Your task to perform on an android device: turn off wifi Image 0: 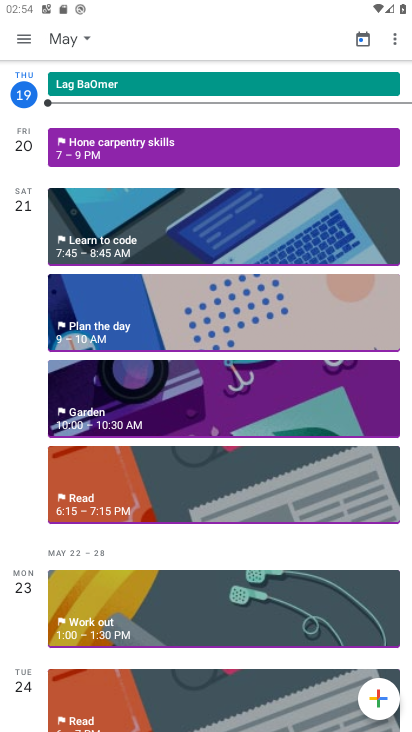
Step 0: press home button
Your task to perform on an android device: turn off wifi Image 1: 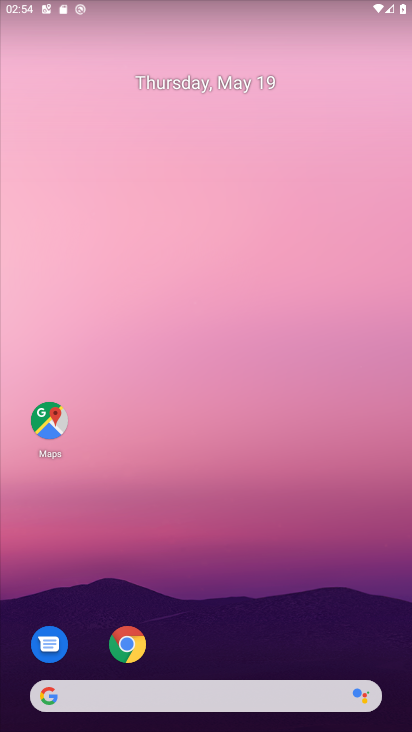
Step 1: drag from (289, 606) to (248, 140)
Your task to perform on an android device: turn off wifi Image 2: 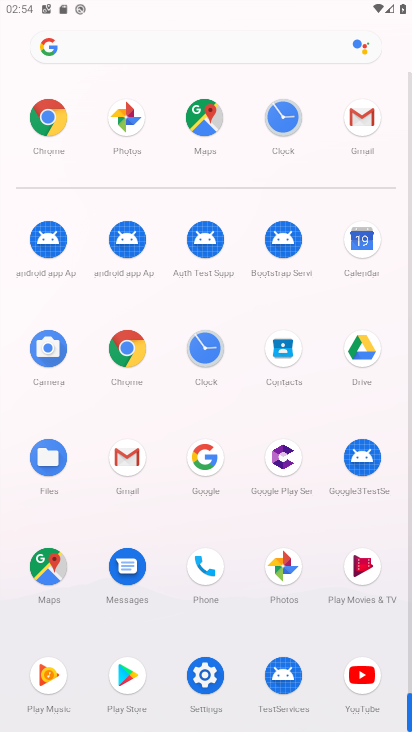
Step 2: drag from (282, 588) to (297, 255)
Your task to perform on an android device: turn off wifi Image 3: 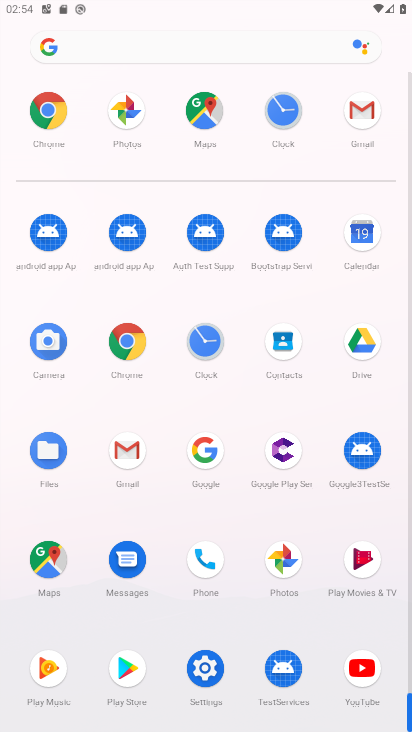
Step 3: click (193, 658)
Your task to perform on an android device: turn off wifi Image 4: 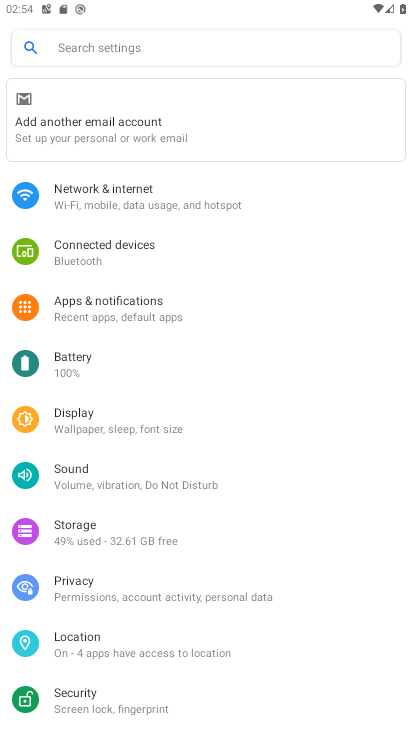
Step 4: click (133, 192)
Your task to perform on an android device: turn off wifi Image 5: 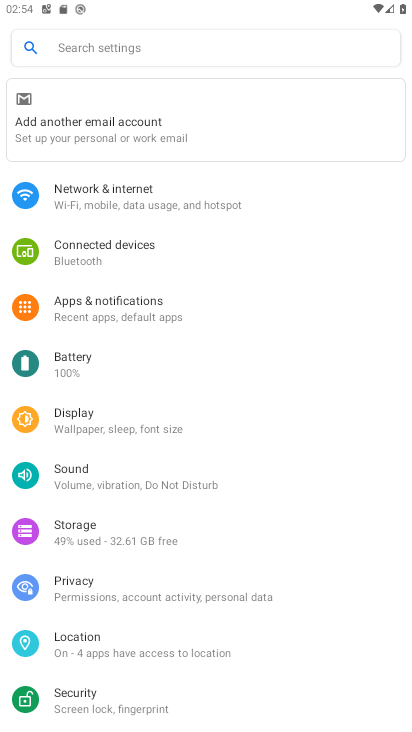
Step 5: click (130, 195)
Your task to perform on an android device: turn off wifi Image 6: 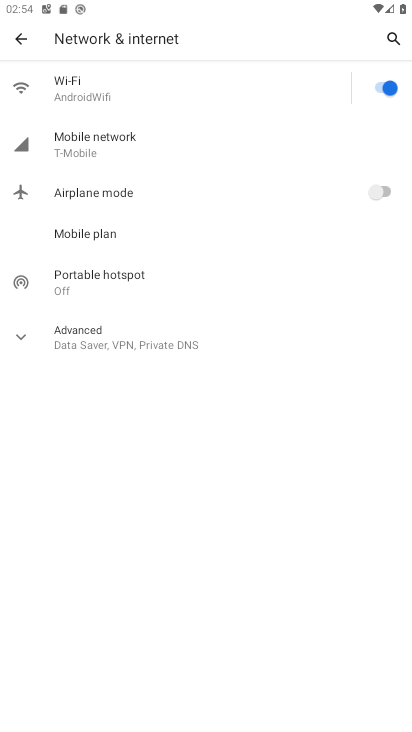
Step 6: click (387, 78)
Your task to perform on an android device: turn off wifi Image 7: 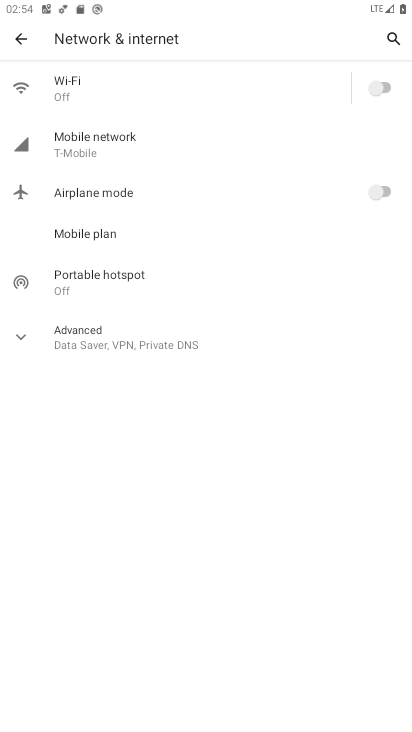
Step 7: task complete